Your task to perform on an android device: What's the weather? Image 0: 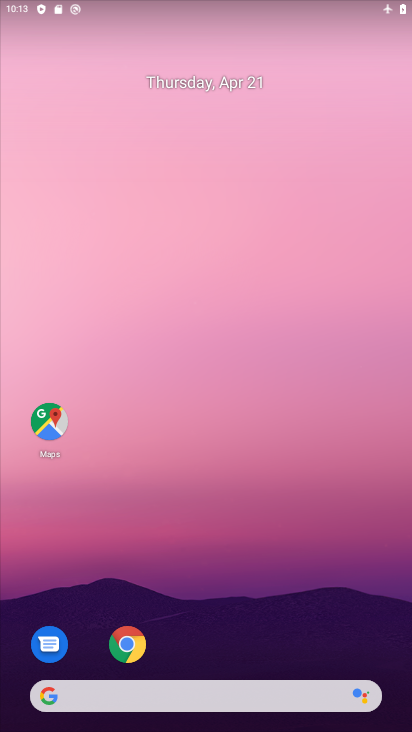
Step 0: drag from (325, 576) to (268, 140)
Your task to perform on an android device: What's the weather? Image 1: 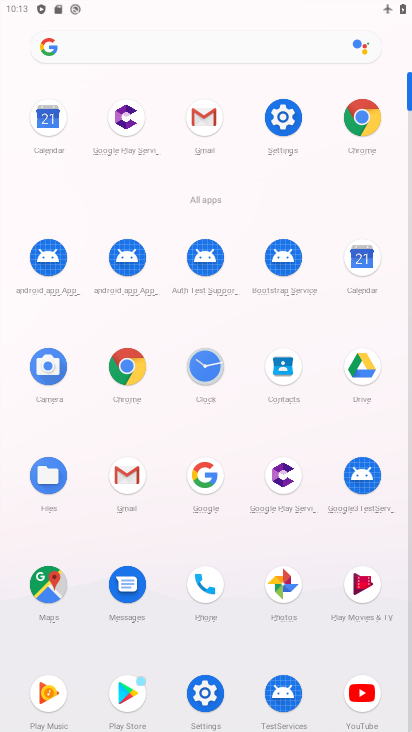
Step 1: click (210, 473)
Your task to perform on an android device: What's the weather? Image 2: 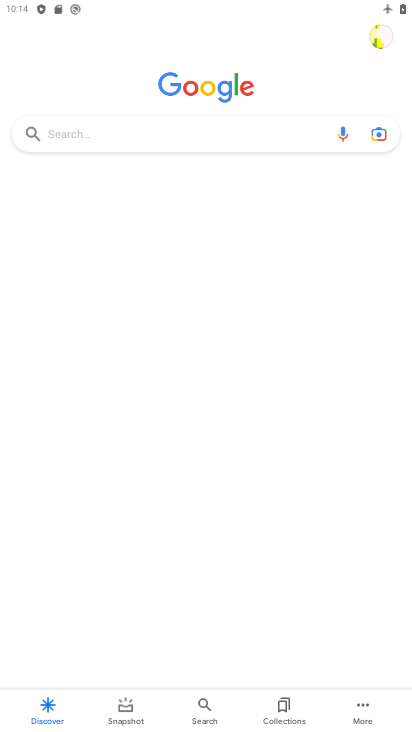
Step 2: press back button
Your task to perform on an android device: What's the weather? Image 3: 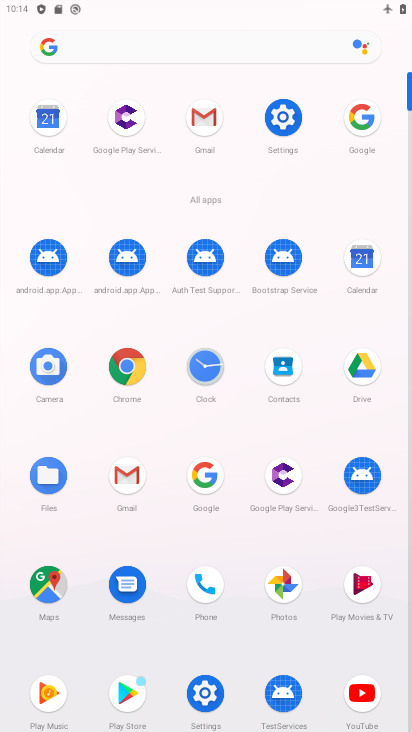
Step 3: click (193, 484)
Your task to perform on an android device: What's the weather? Image 4: 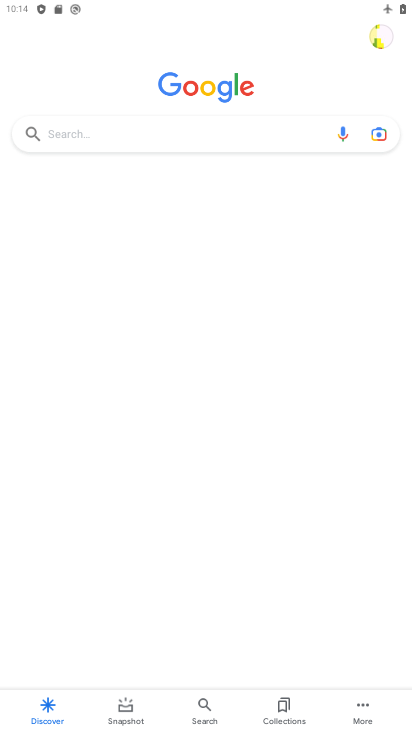
Step 4: task complete